Your task to perform on an android device: Open battery settings Image 0: 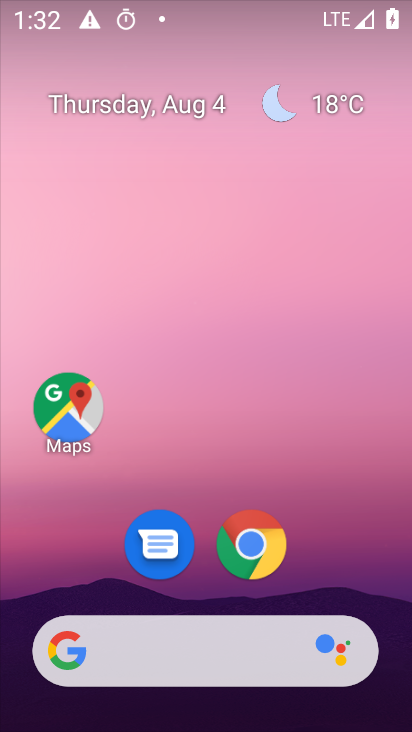
Step 0: drag from (366, 667) to (275, 66)
Your task to perform on an android device: Open battery settings Image 1: 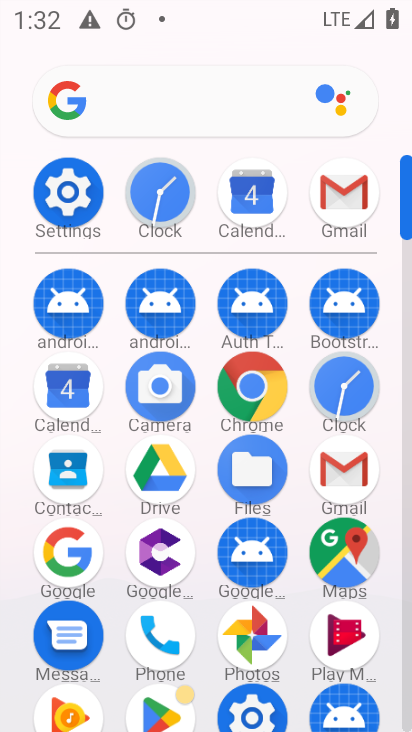
Step 1: click (83, 187)
Your task to perform on an android device: Open battery settings Image 2: 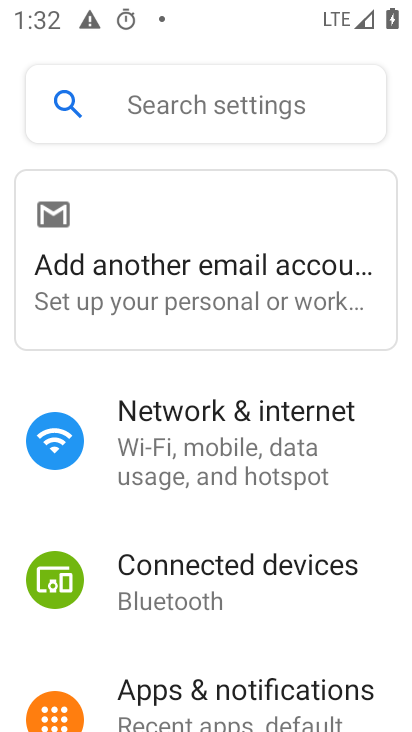
Step 2: drag from (205, 650) to (194, 332)
Your task to perform on an android device: Open battery settings Image 3: 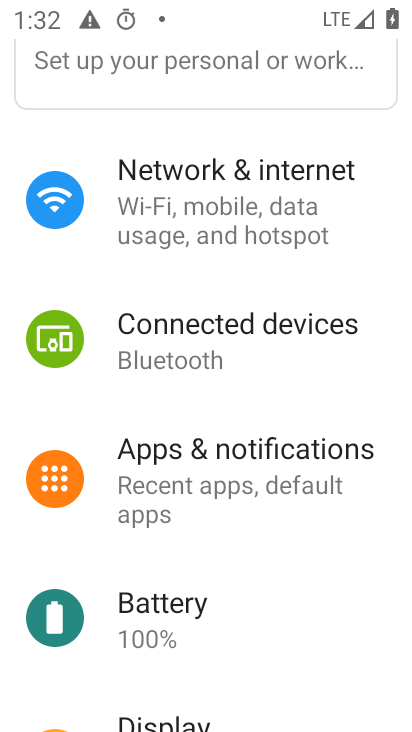
Step 3: click (152, 603)
Your task to perform on an android device: Open battery settings Image 4: 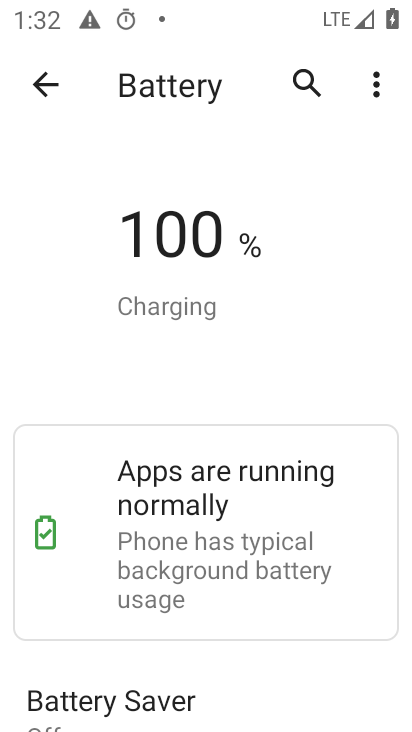
Step 4: task complete